Your task to perform on an android device: Go to Amazon Image 0: 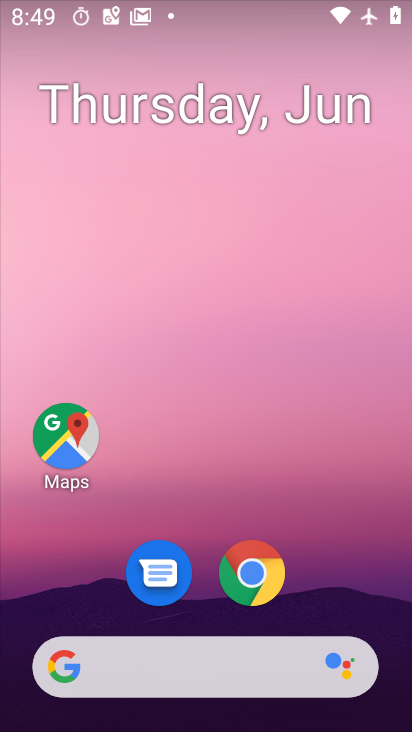
Step 0: click (266, 574)
Your task to perform on an android device: Go to Amazon Image 1: 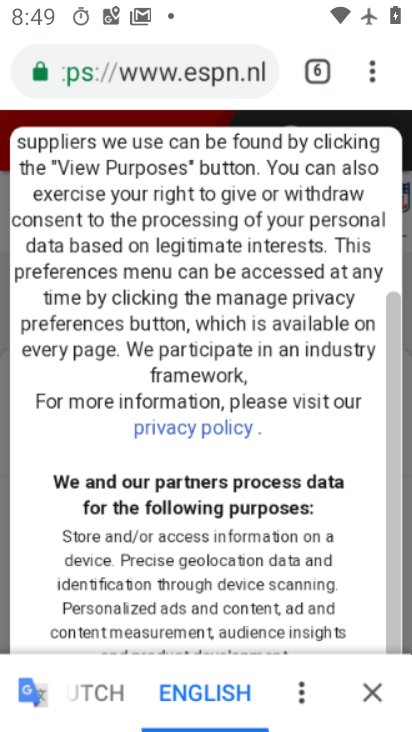
Step 1: click (360, 67)
Your task to perform on an android device: Go to Amazon Image 2: 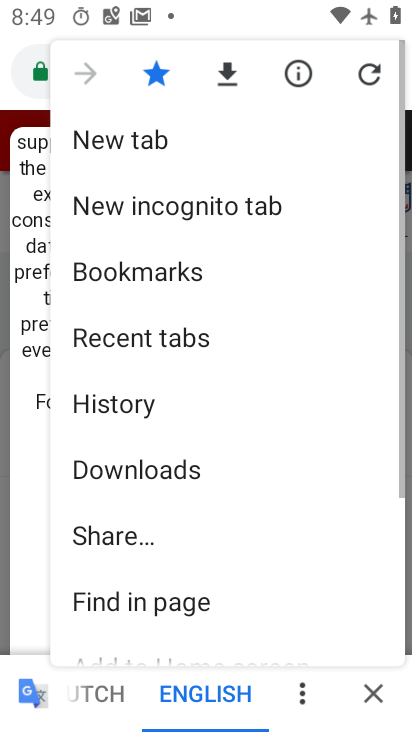
Step 2: click (144, 130)
Your task to perform on an android device: Go to Amazon Image 3: 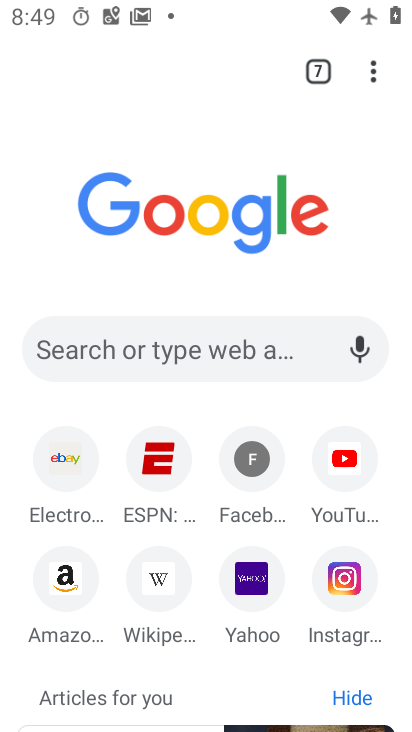
Step 3: click (58, 589)
Your task to perform on an android device: Go to Amazon Image 4: 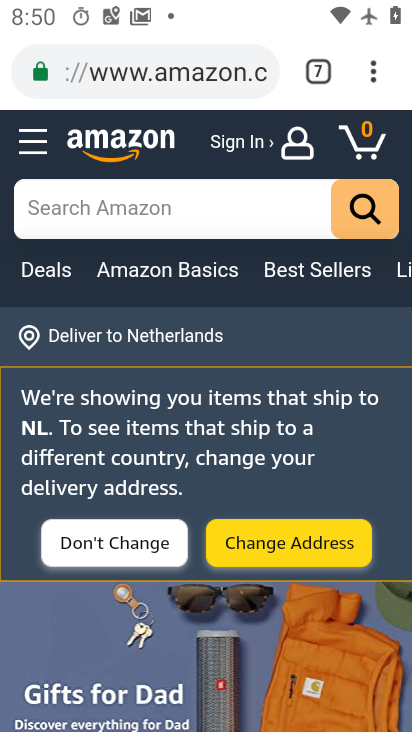
Step 4: task complete